Your task to perform on an android device: toggle airplane mode Image 0: 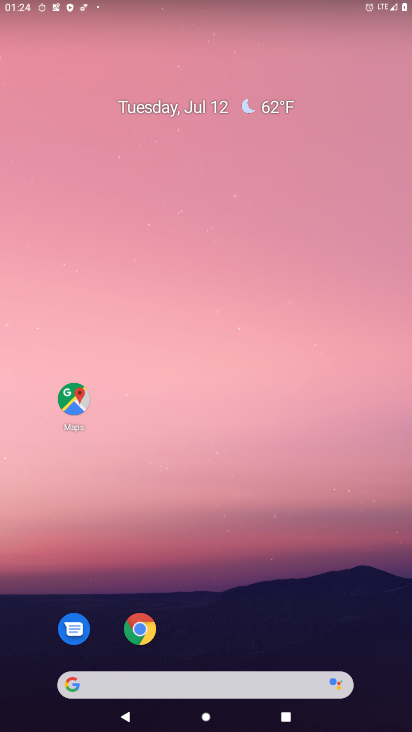
Step 0: drag from (270, 621) to (269, 263)
Your task to perform on an android device: toggle airplane mode Image 1: 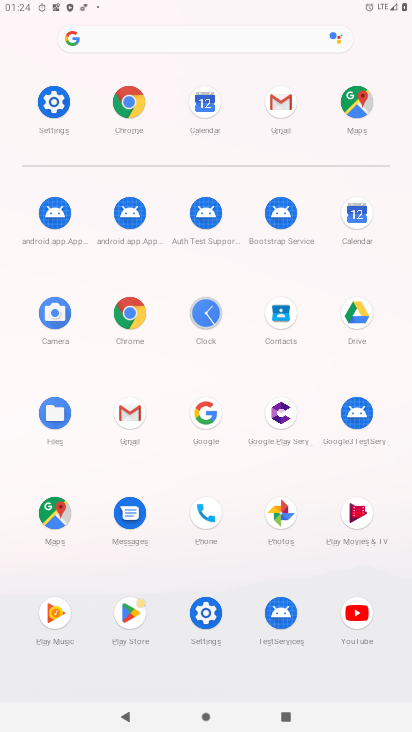
Step 1: drag from (289, 11) to (245, 628)
Your task to perform on an android device: toggle airplane mode Image 2: 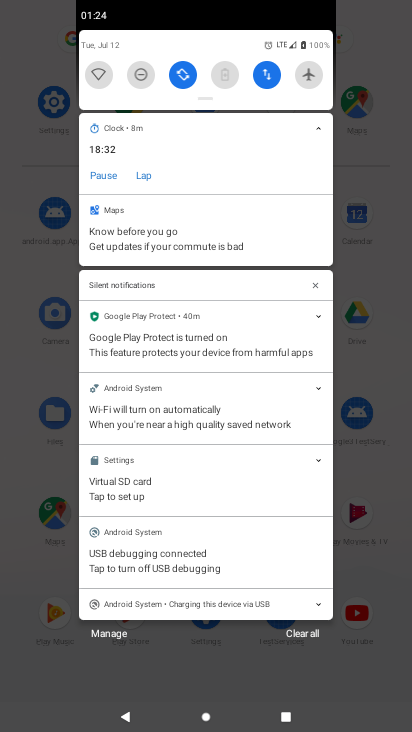
Step 2: click (306, 69)
Your task to perform on an android device: toggle airplane mode Image 3: 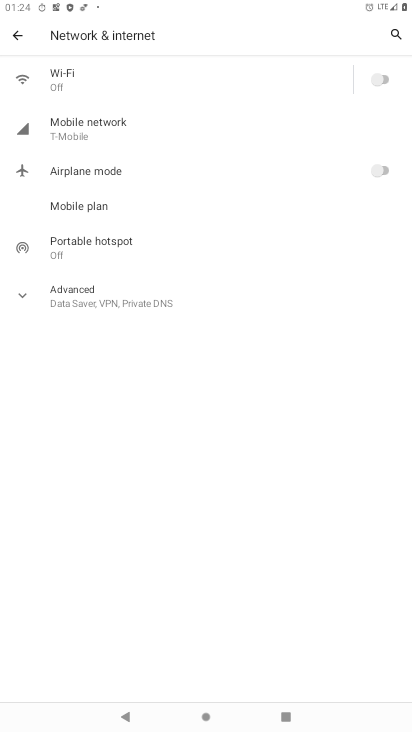
Step 3: click (13, 30)
Your task to perform on an android device: toggle airplane mode Image 4: 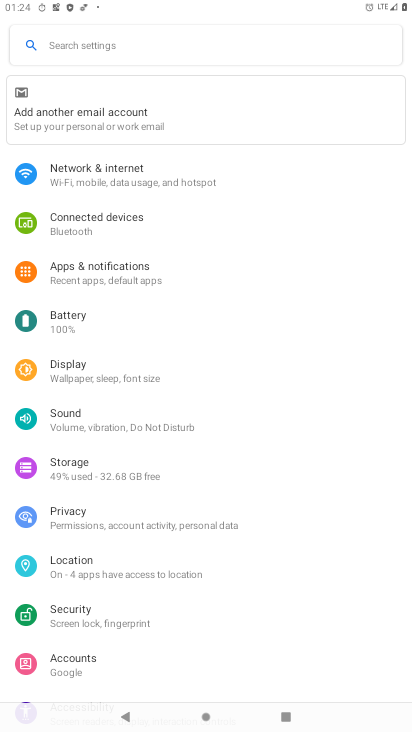
Step 4: drag from (328, 7) to (300, 344)
Your task to perform on an android device: toggle airplane mode Image 5: 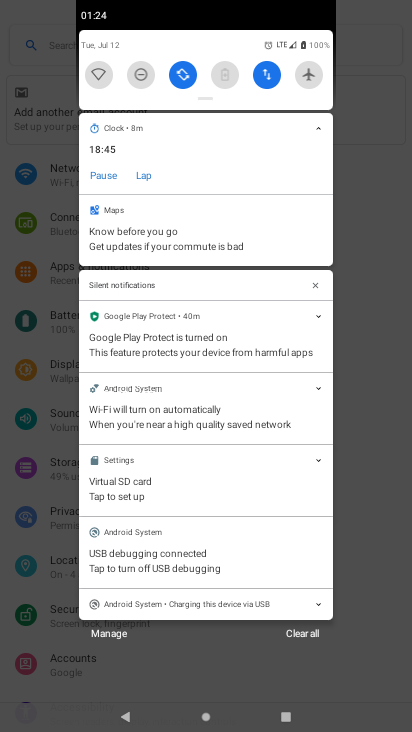
Step 5: click (304, 68)
Your task to perform on an android device: toggle airplane mode Image 6: 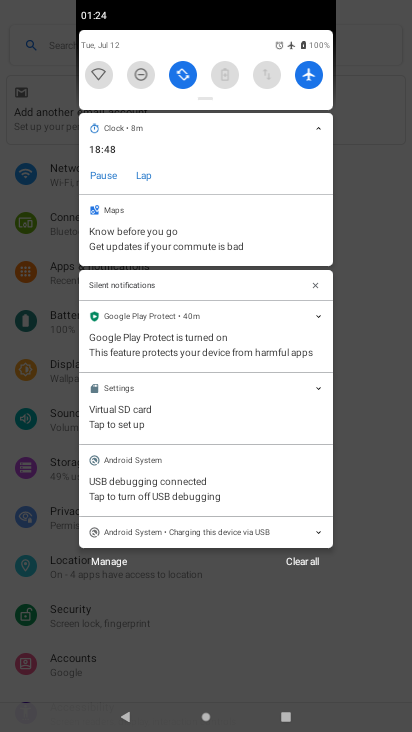
Step 6: task complete